Your task to perform on an android device: Empty the shopping cart on walmart.com. Add asus rog to the cart on walmart.com Image 0: 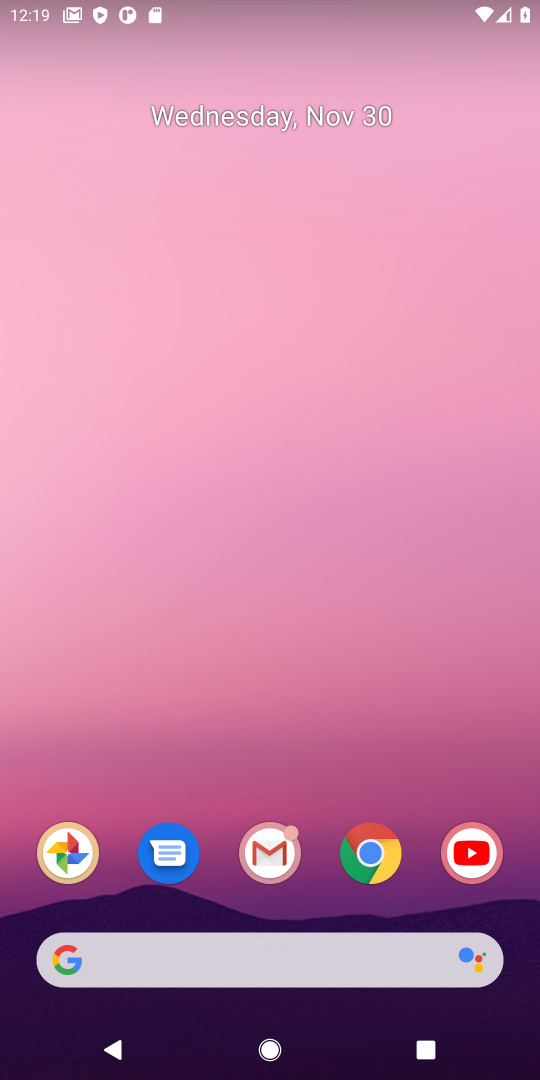
Step 0: click (369, 857)
Your task to perform on an android device: Empty the shopping cart on walmart.com. Add asus rog to the cart on walmart.com Image 1: 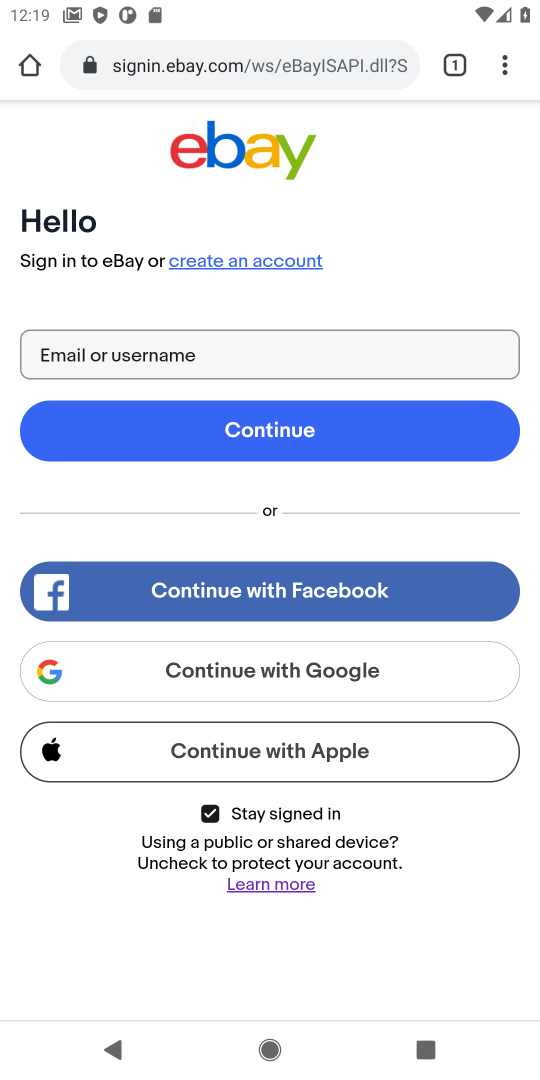
Step 1: click (205, 66)
Your task to perform on an android device: Empty the shopping cart on walmart.com. Add asus rog to the cart on walmart.com Image 2: 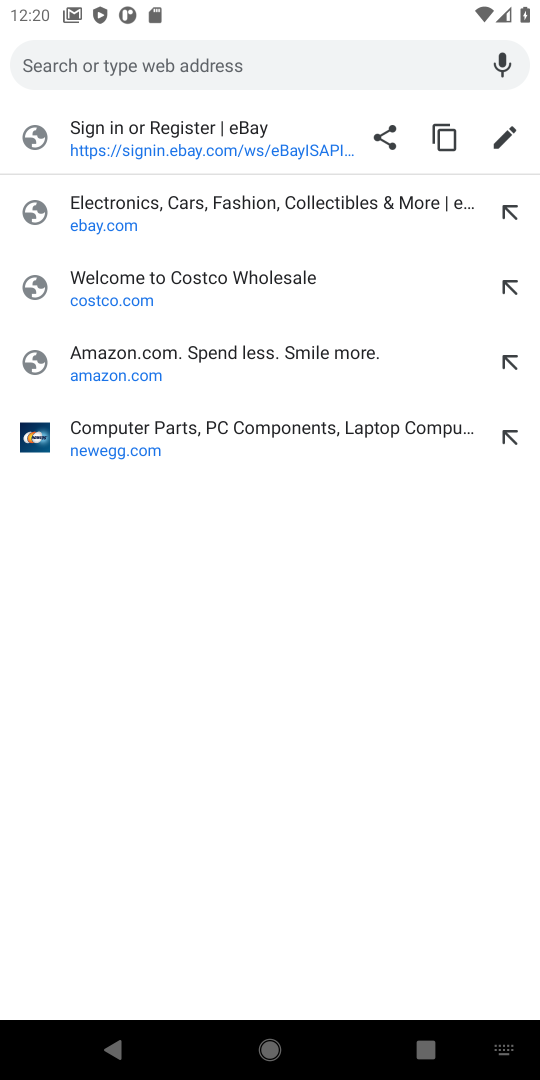
Step 2: type "walmart.com"
Your task to perform on an android device: Empty the shopping cart on walmart.com. Add asus rog to the cart on walmart.com Image 3: 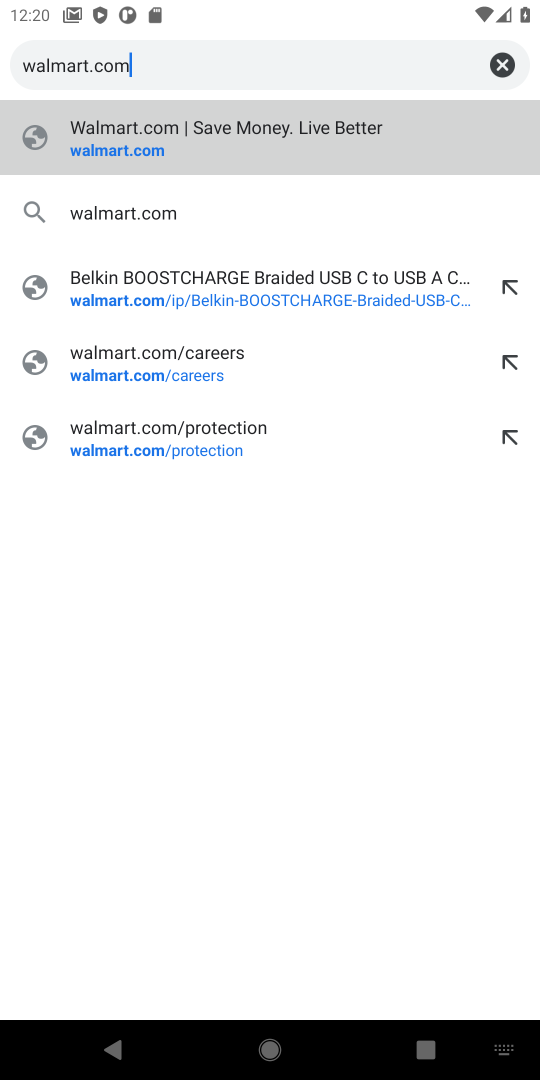
Step 3: click (113, 149)
Your task to perform on an android device: Empty the shopping cart on walmart.com. Add asus rog to the cart on walmart.com Image 4: 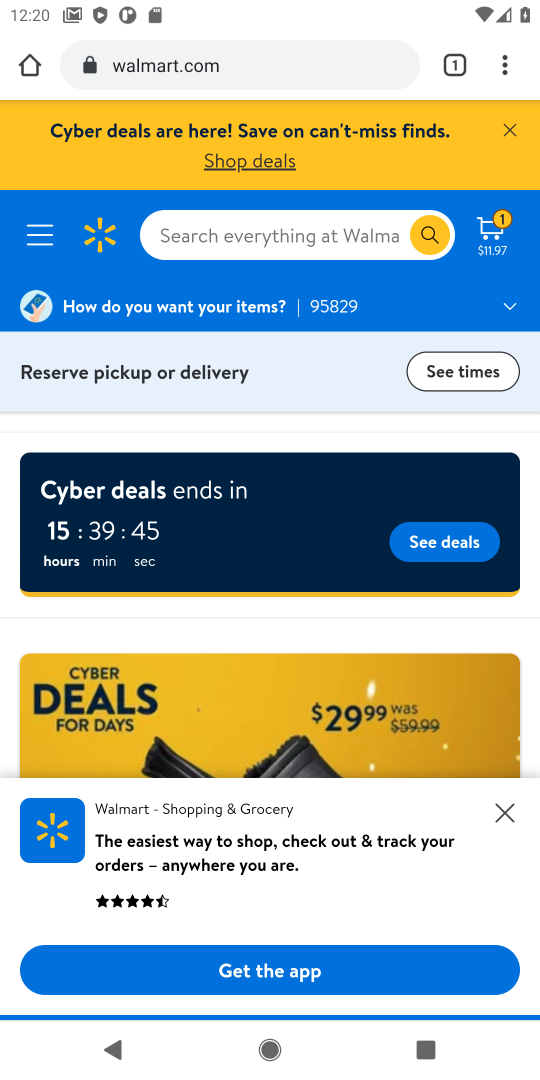
Step 4: click (497, 234)
Your task to perform on an android device: Empty the shopping cart on walmart.com. Add asus rog to the cart on walmart.com Image 5: 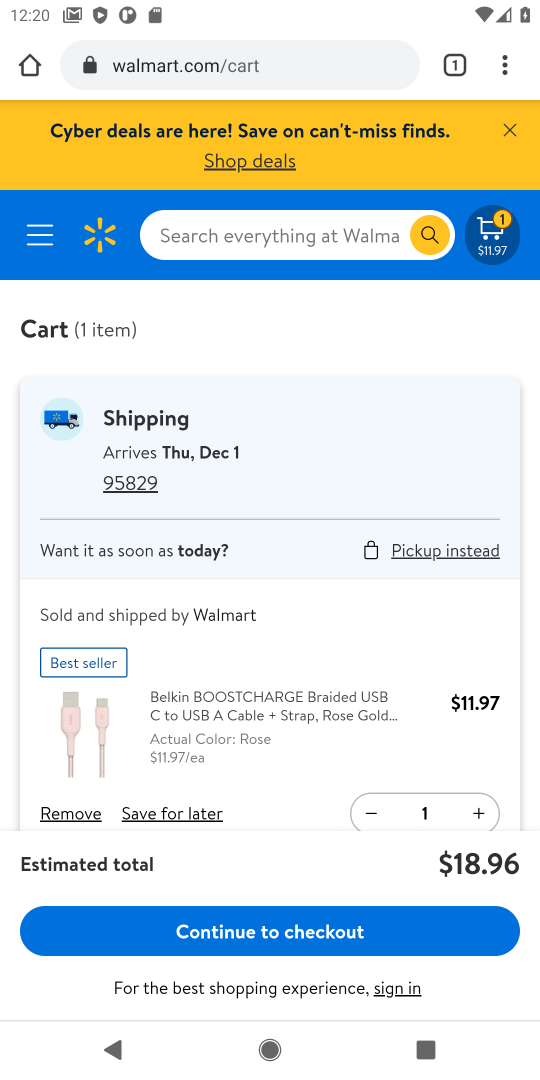
Step 5: drag from (391, 680) to (378, 356)
Your task to perform on an android device: Empty the shopping cart on walmart.com. Add asus rog to the cart on walmart.com Image 6: 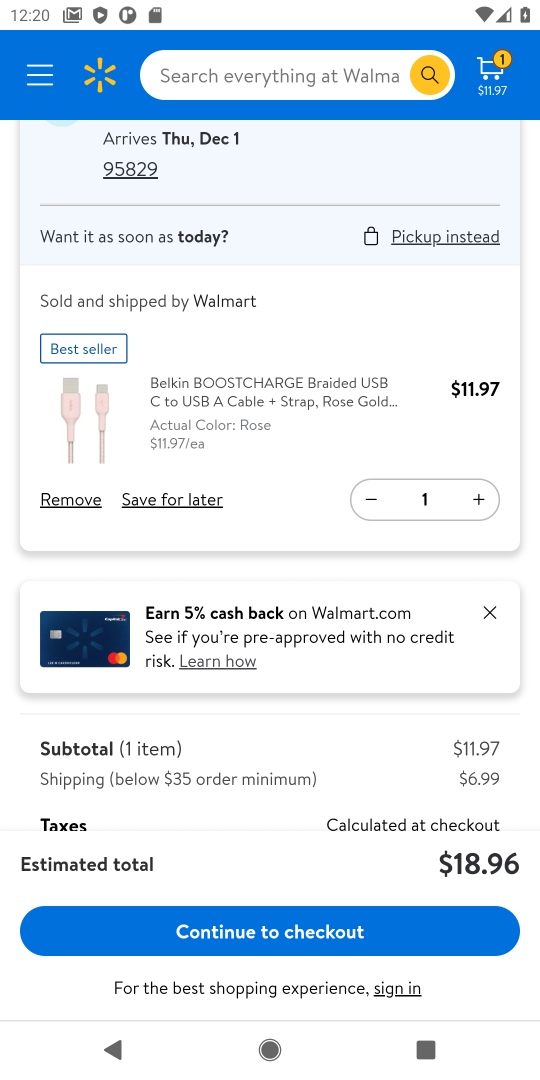
Step 6: click (59, 502)
Your task to perform on an android device: Empty the shopping cart on walmart.com. Add asus rog to the cart on walmart.com Image 7: 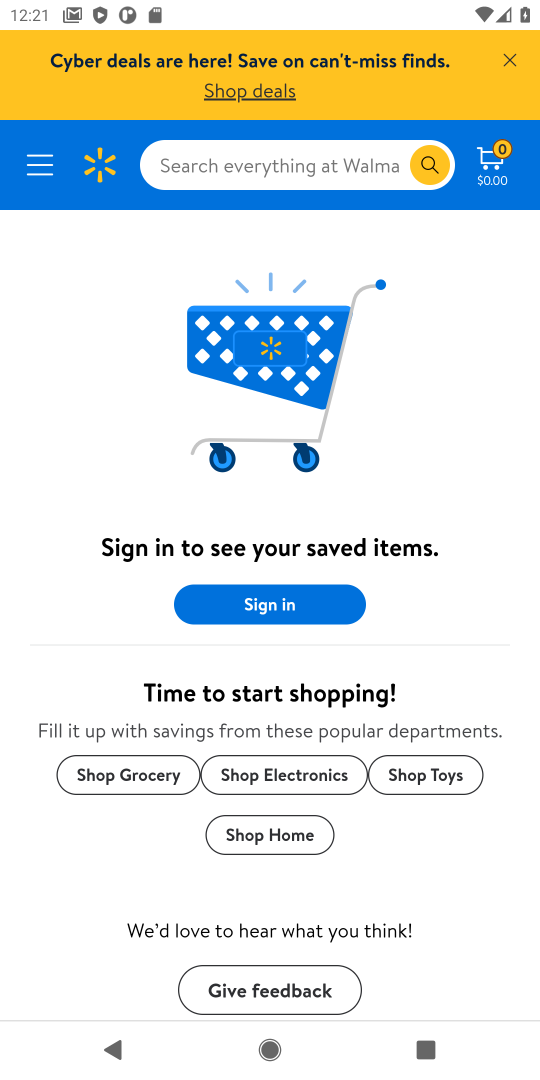
Step 7: click (261, 163)
Your task to perform on an android device: Empty the shopping cart on walmart.com. Add asus rog to the cart on walmart.com Image 8: 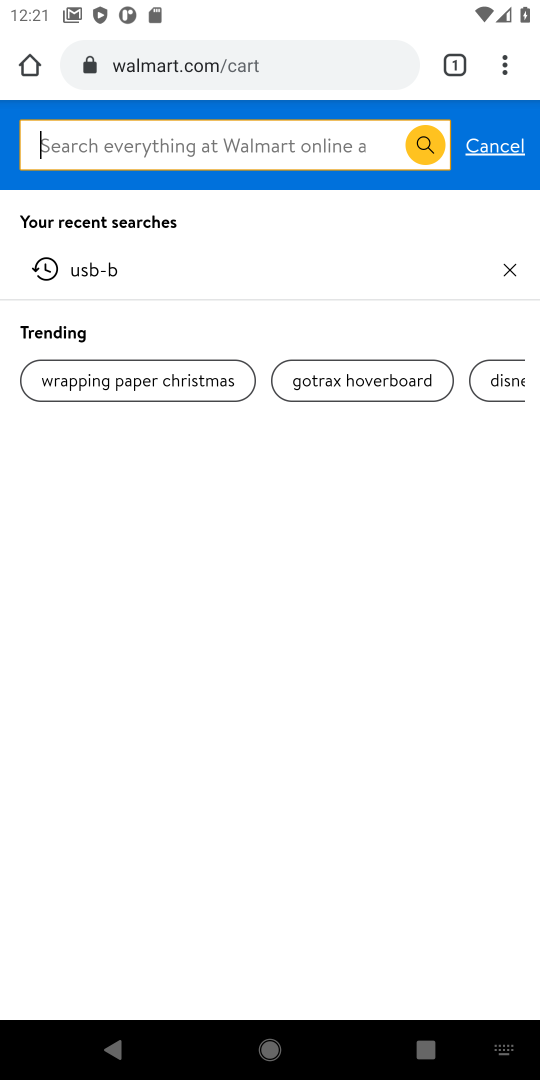
Step 8: type "asus rog"
Your task to perform on an android device: Empty the shopping cart on walmart.com. Add asus rog to the cart on walmart.com Image 9: 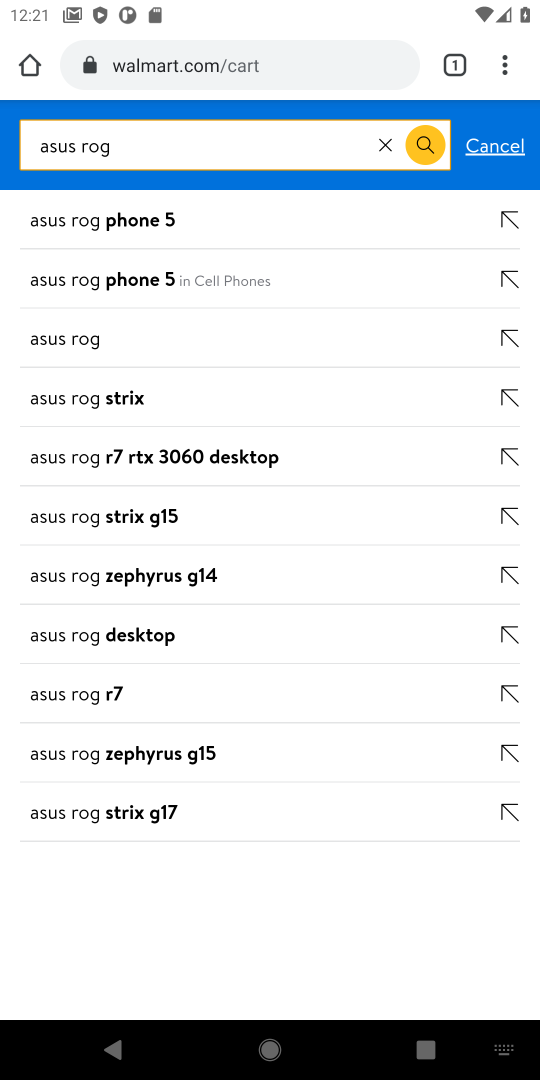
Step 9: click (50, 345)
Your task to perform on an android device: Empty the shopping cart on walmart.com. Add asus rog to the cart on walmart.com Image 10: 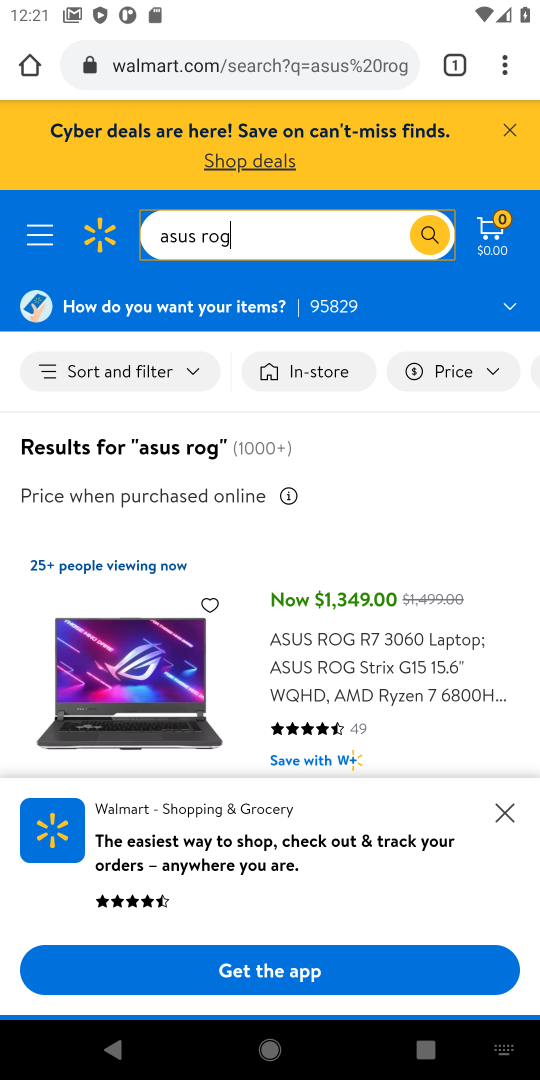
Step 10: drag from (268, 609) to (248, 358)
Your task to perform on an android device: Empty the shopping cart on walmart.com. Add asus rog to the cart on walmart.com Image 11: 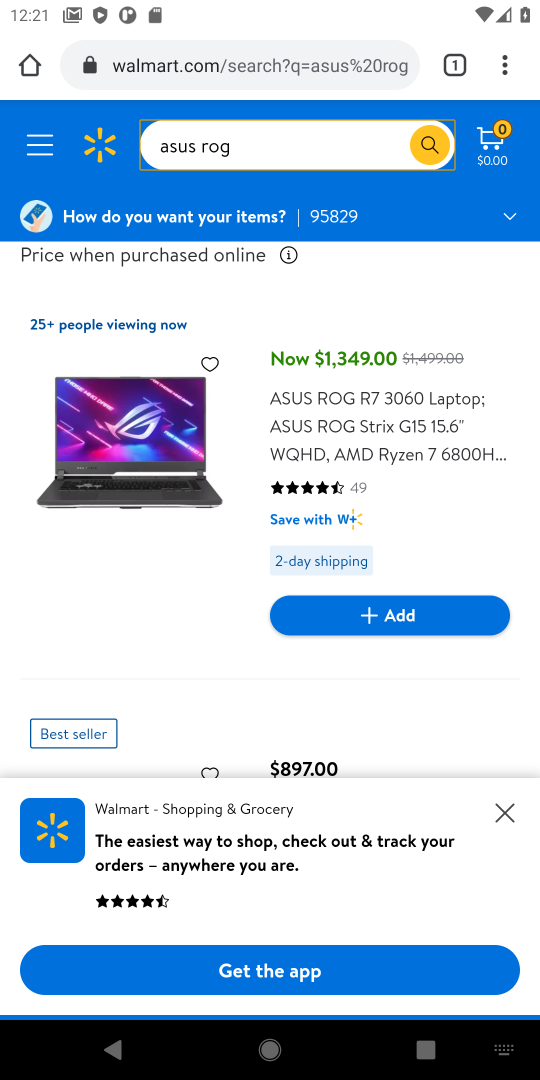
Step 11: click (387, 621)
Your task to perform on an android device: Empty the shopping cart on walmart.com. Add asus rog to the cart on walmart.com Image 12: 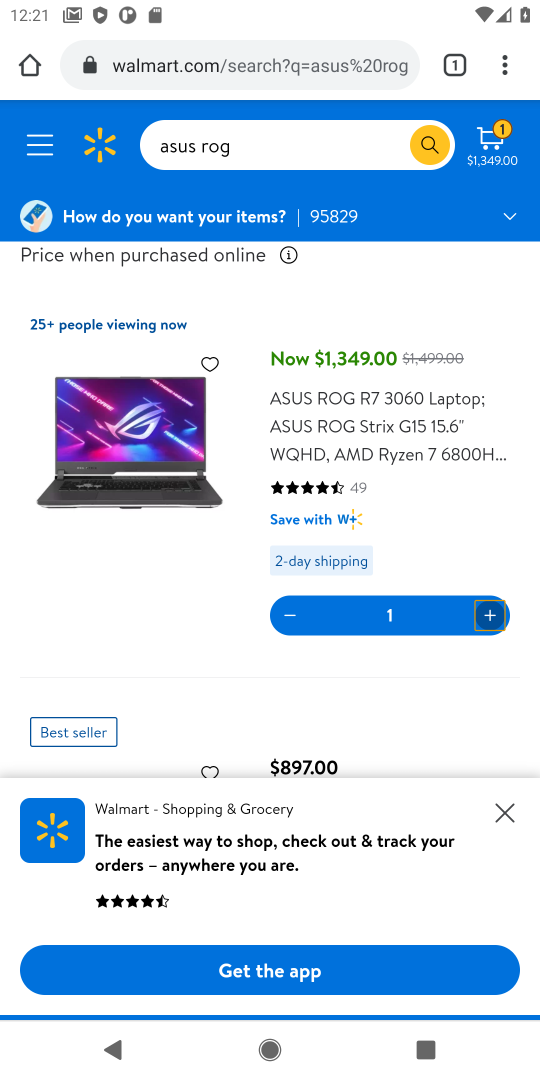
Step 12: task complete